Your task to perform on an android device: Find coffee shops on Maps Image 0: 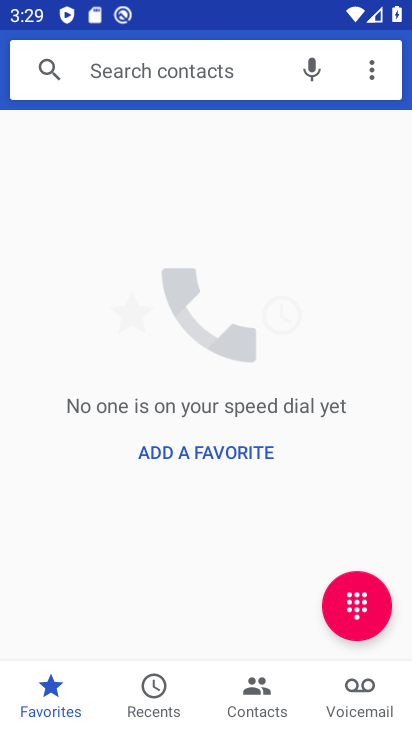
Step 0: press back button
Your task to perform on an android device: Find coffee shops on Maps Image 1: 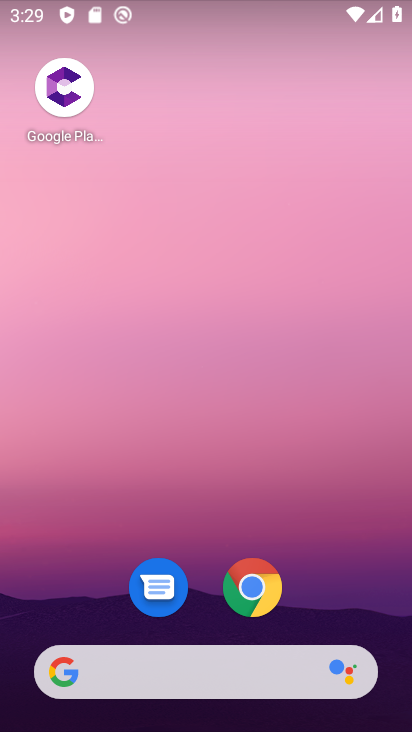
Step 1: drag from (317, 391) to (259, 22)
Your task to perform on an android device: Find coffee shops on Maps Image 2: 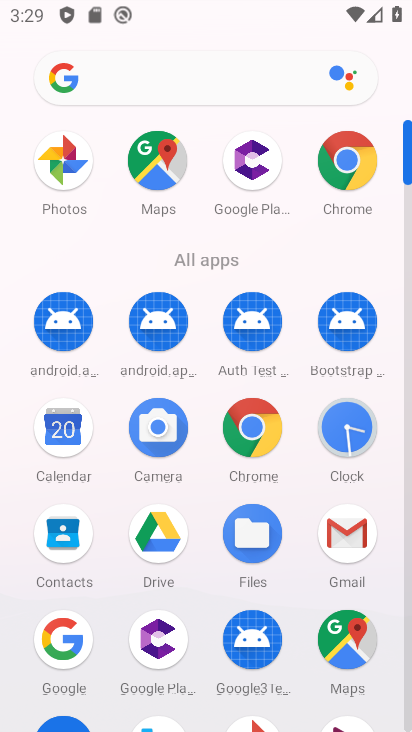
Step 2: drag from (31, 558) to (17, 251)
Your task to perform on an android device: Find coffee shops on Maps Image 3: 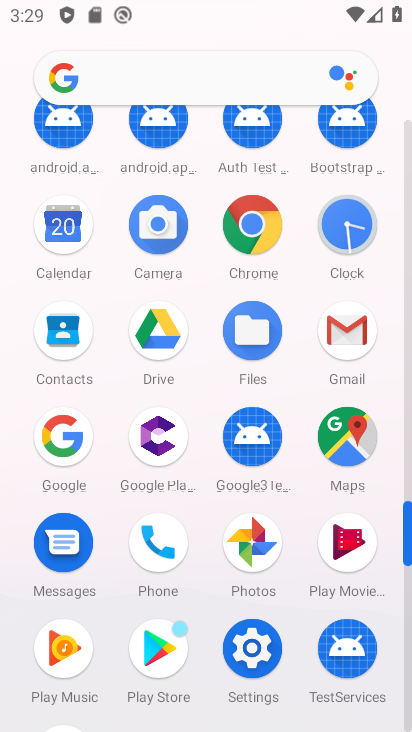
Step 3: click (350, 432)
Your task to perform on an android device: Find coffee shops on Maps Image 4: 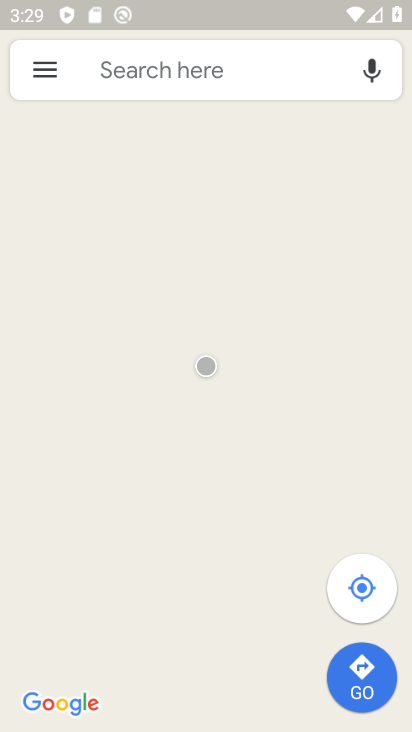
Step 4: click (241, 64)
Your task to perform on an android device: Find coffee shops on Maps Image 5: 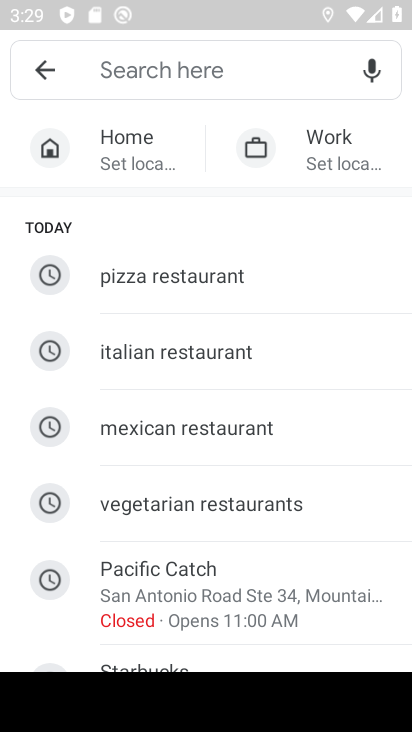
Step 5: type "coffee shops"
Your task to perform on an android device: Find coffee shops on Maps Image 6: 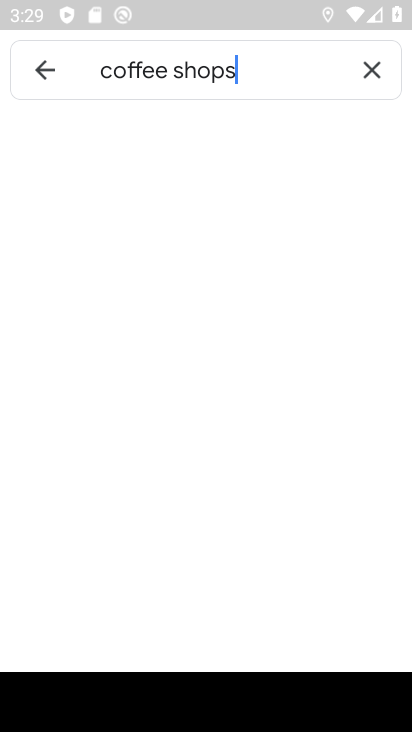
Step 6: type ""
Your task to perform on an android device: Find coffee shops on Maps Image 7: 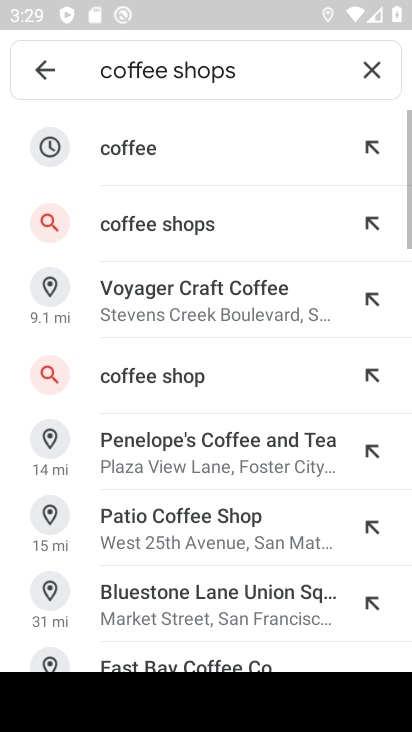
Step 7: click (150, 213)
Your task to perform on an android device: Find coffee shops on Maps Image 8: 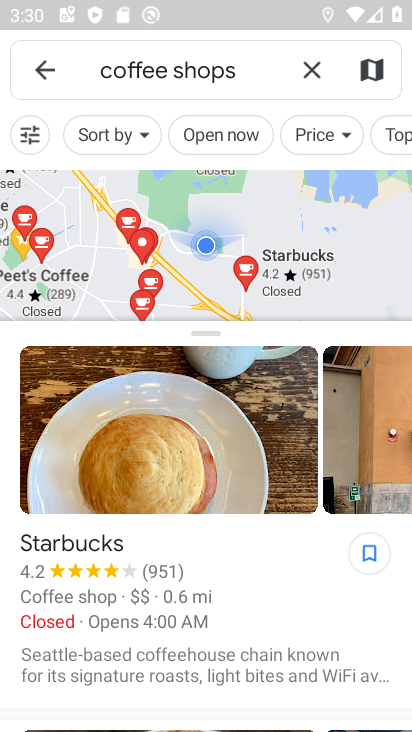
Step 8: task complete